Your task to perform on an android device: Search for the new Air Jordan 13 on Nike.com Image 0: 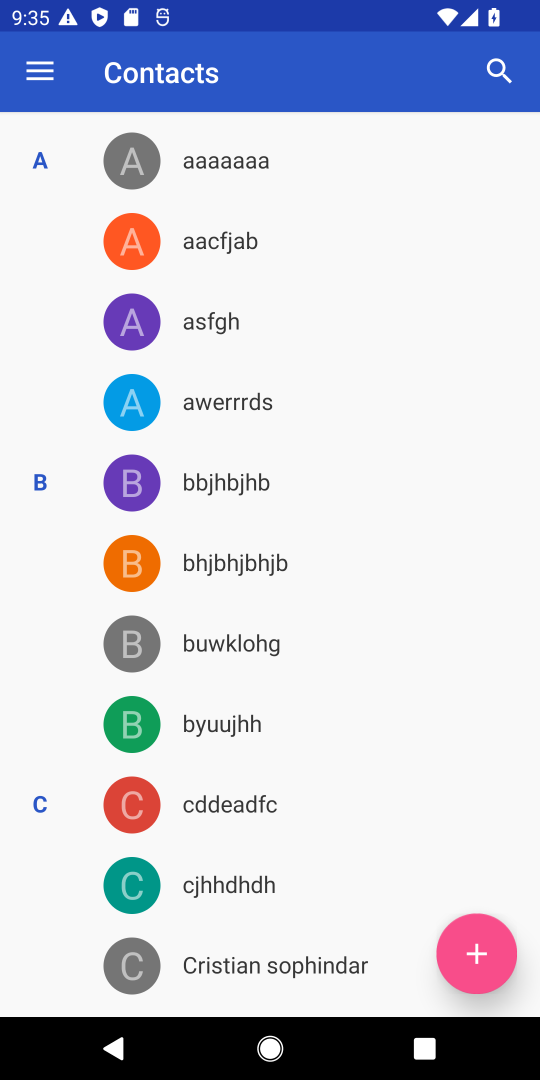
Step 0: press home button
Your task to perform on an android device: Search for the new Air Jordan 13 on Nike.com Image 1: 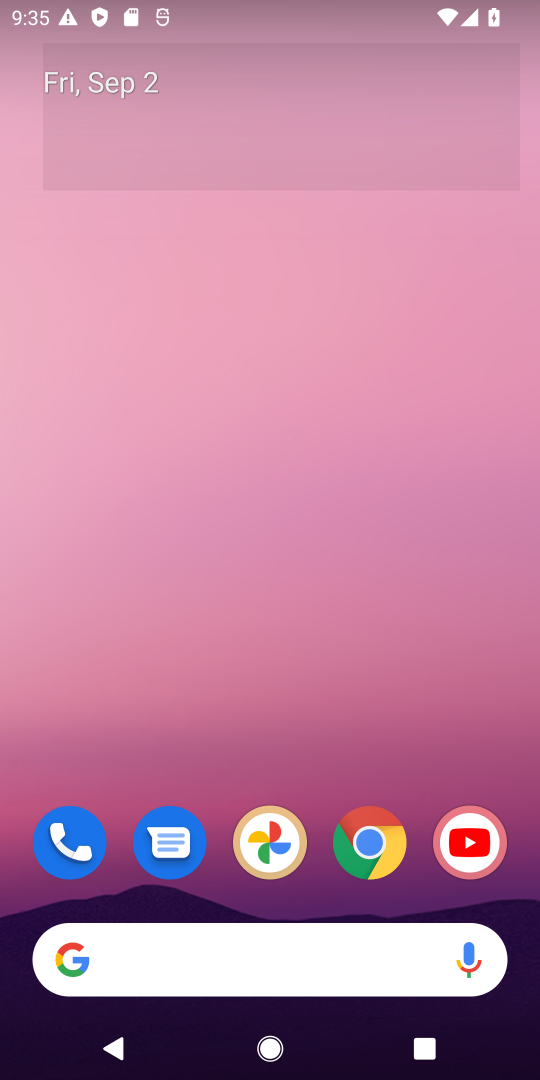
Step 1: drag from (208, 691) to (284, 28)
Your task to perform on an android device: Search for the new Air Jordan 13 on Nike.com Image 2: 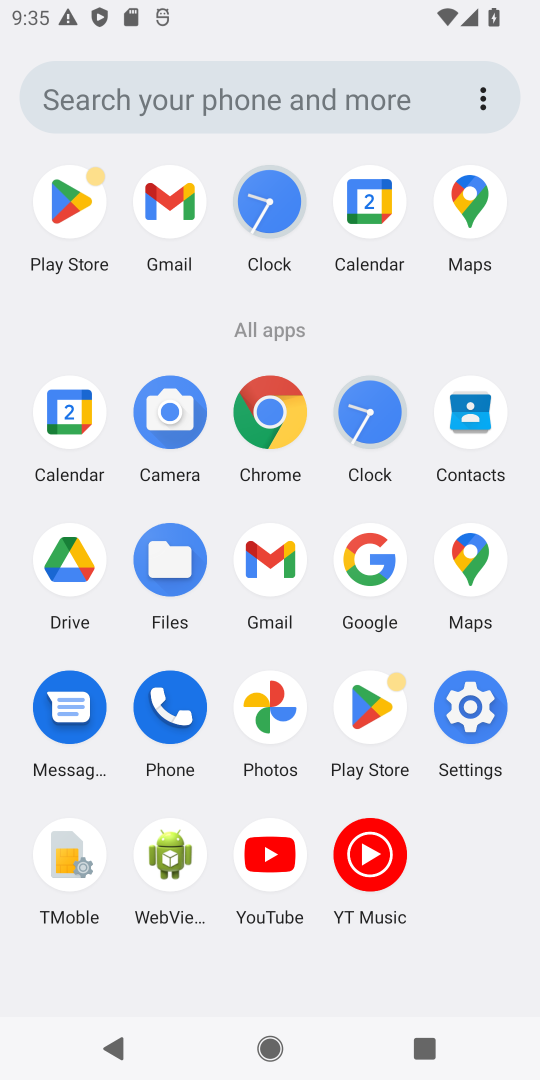
Step 2: click (258, 428)
Your task to perform on an android device: Search for the new Air Jordan 13 on Nike.com Image 3: 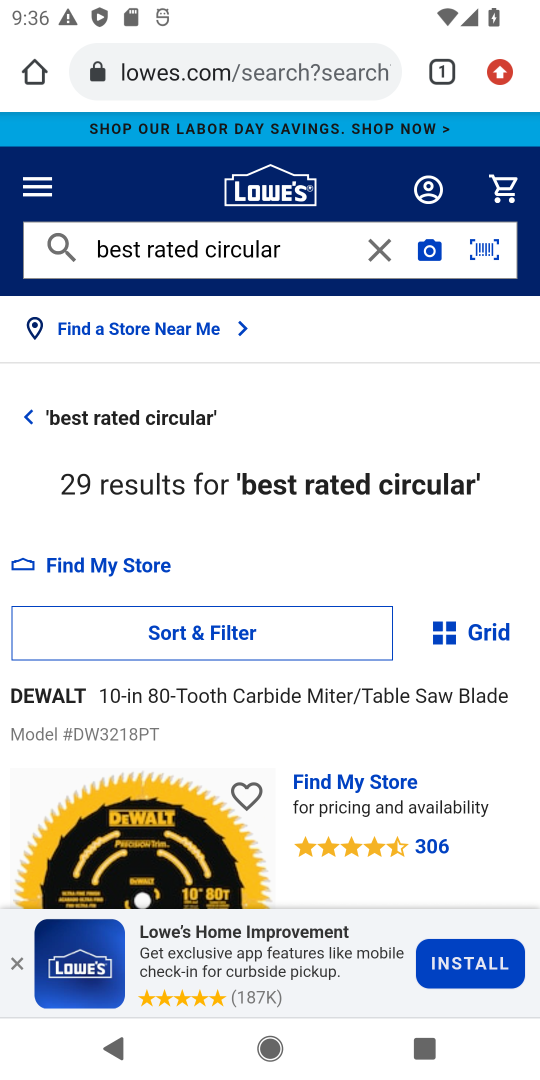
Step 3: task complete